Your task to perform on an android device: turn on priority inbox in the gmail app Image 0: 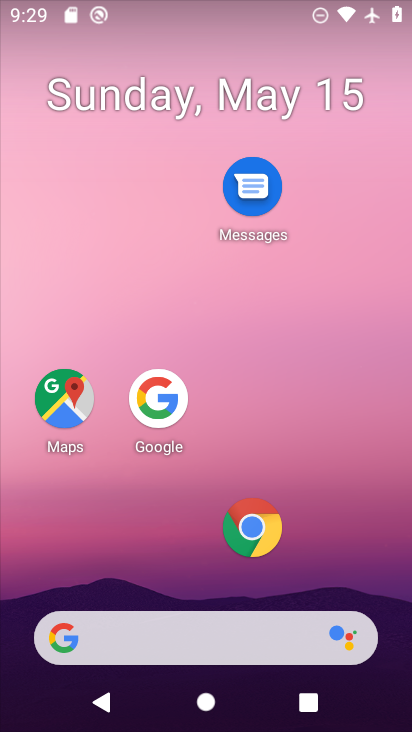
Step 0: drag from (130, 624) to (266, 260)
Your task to perform on an android device: turn on priority inbox in the gmail app Image 1: 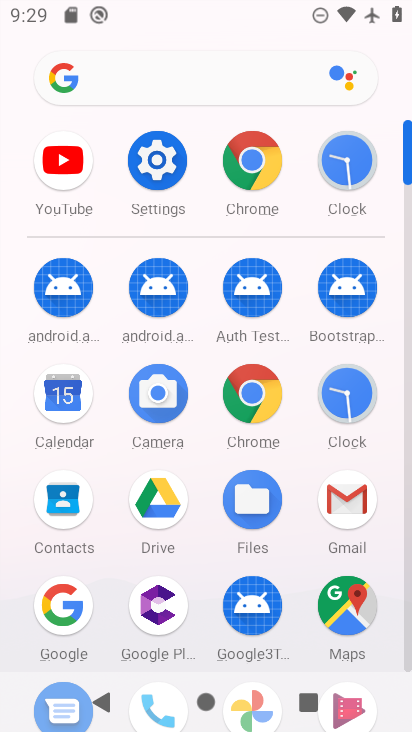
Step 1: click (343, 509)
Your task to perform on an android device: turn on priority inbox in the gmail app Image 2: 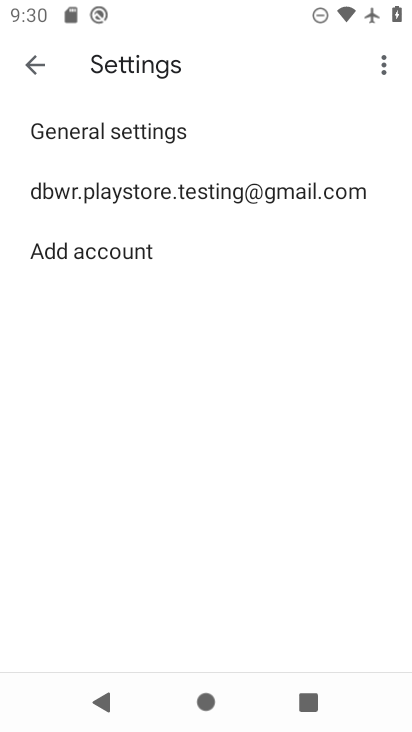
Step 2: click (305, 186)
Your task to perform on an android device: turn on priority inbox in the gmail app Image 3: 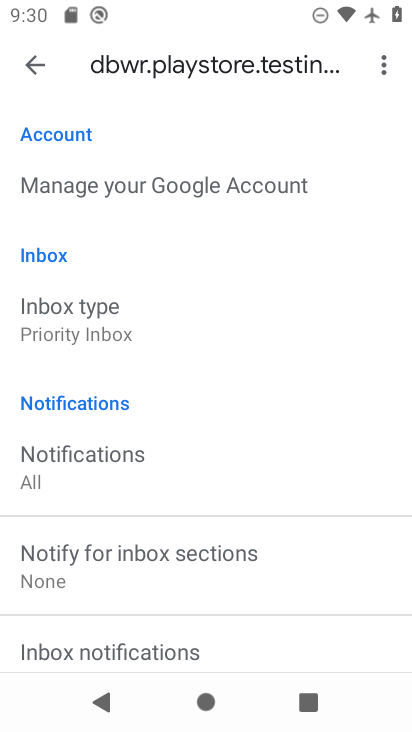
Step 3: click (112, 325)
Your task to perform on an android device: turn on priority inbox in the gmail app Image 4: 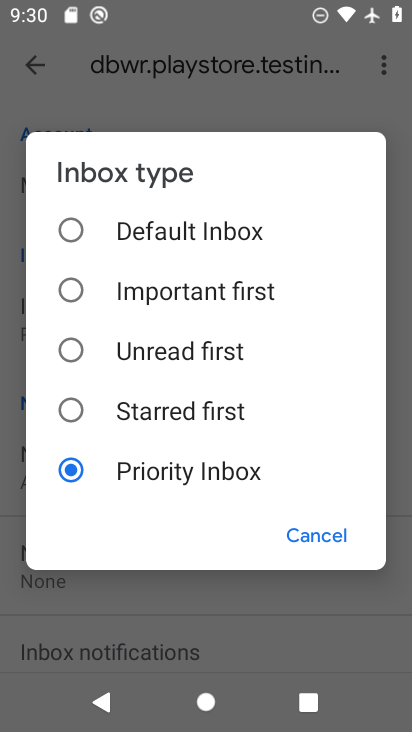
Step 4: task complete